Your task to perform on an android device: Go to wifi settings Image 0: 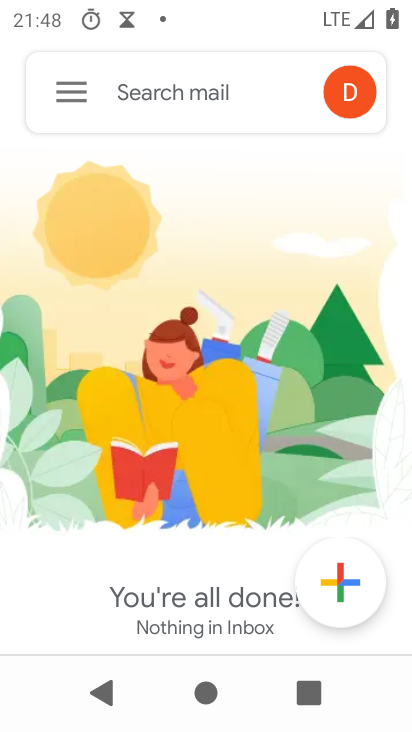
Step 0: press home button
Your task to perform on an android device: Go to wifi settings Image 1: 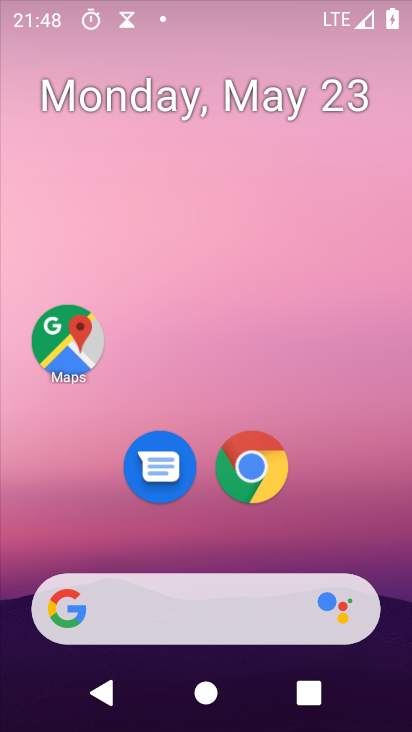
Step 1: drag from (354, 544) to (218, 8)
Your task to perform on an android device: Go to wifi settings Image 2: 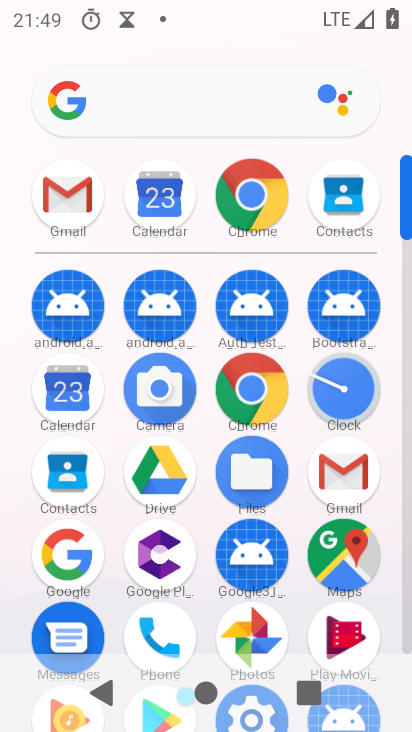
Step 2: drag from (272, 472) to (207, 109)
Your task to perform on an android device: Go to wifi settings Image 3: 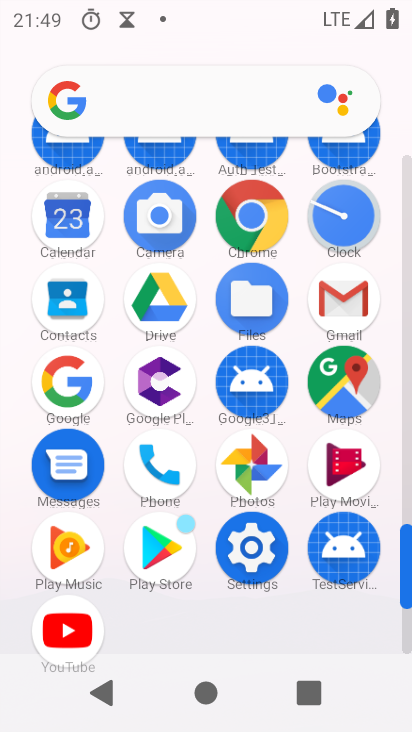
Step 3: click (258, 565)
Your task to perform on an android device: Go to wifi settings Image 4: 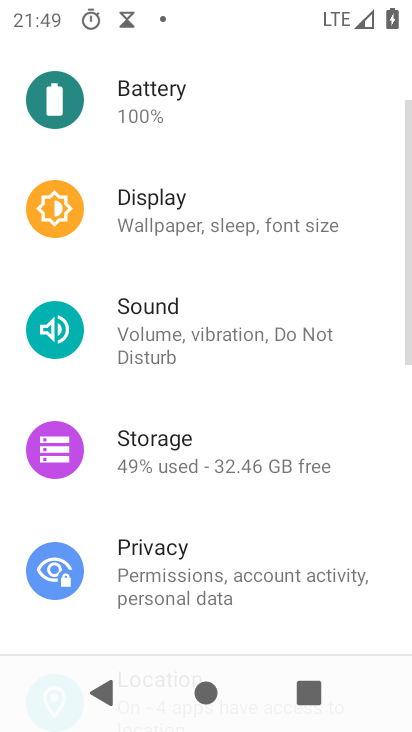
Step 4: drag from (212, 139) to (230, 639)
Your task to perform on an android device: Go to wifi settings Image 5: 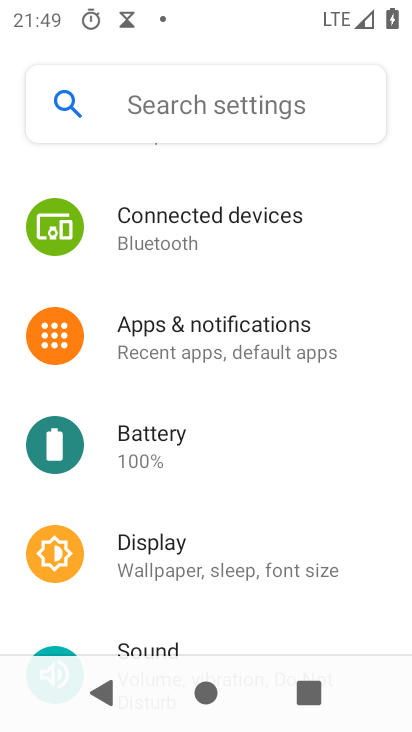
Step 5: drag from (194, 204) to (206, 573)
Your task to perform on an android device: Go to wifi settings Image 6: 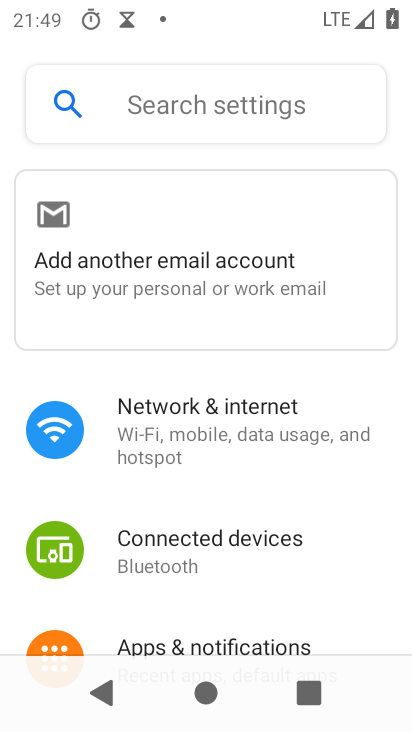
Step 6: click (198, 437)
Your task to perform on an android device: Go to wifi settings Image 7: 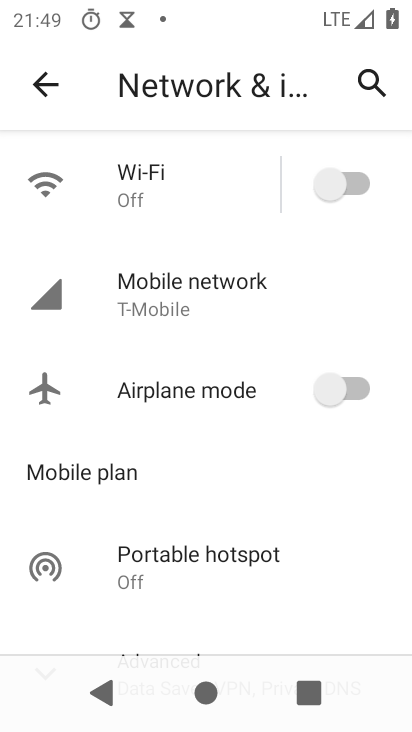
Step 7: click (156, 191)
Your task to perform on an android device: Go to wifi settings Image 8: 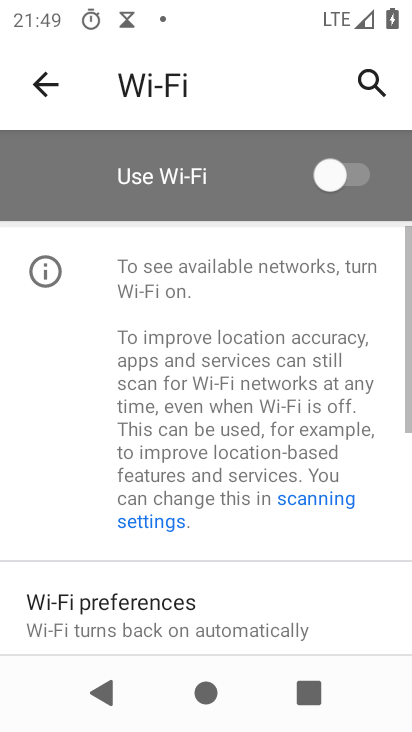
Step 8: task complete